Your task to perform on an android device: Open CNN.com Image 0: 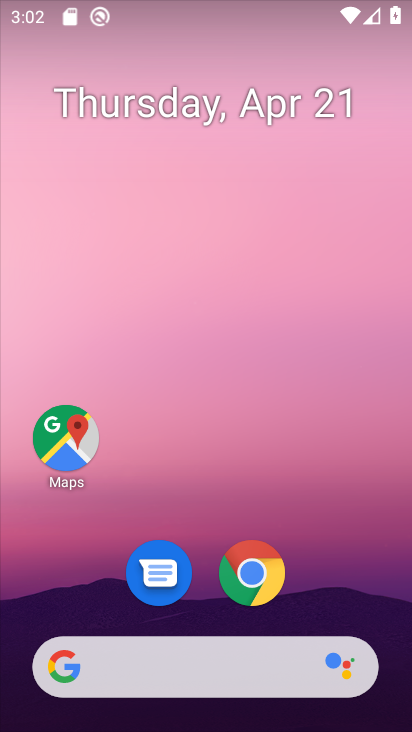
Step 0: click (257, 583)
Your task to perform on an android device: Open CNN.com Image 1: 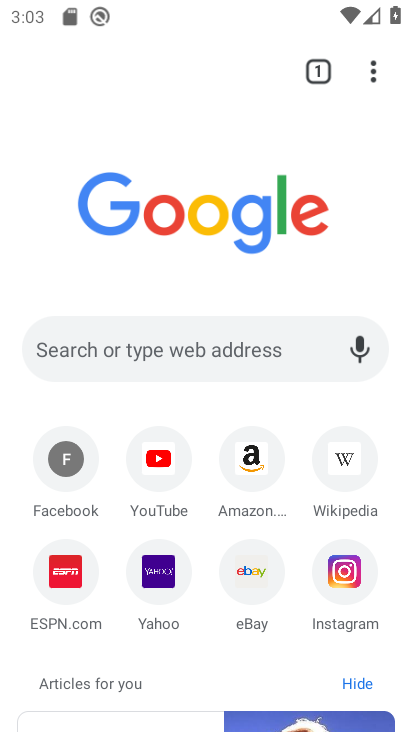
Step 1: click (202, 364)
Your task to perform on an android device: Open CNN.com Image 2: 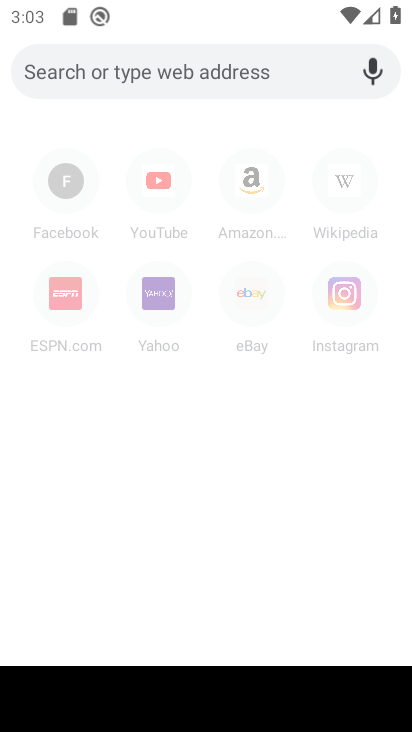
Step 2: type "CNN.com"
Your task to perform on an android device: Open CNN.com Image 3: 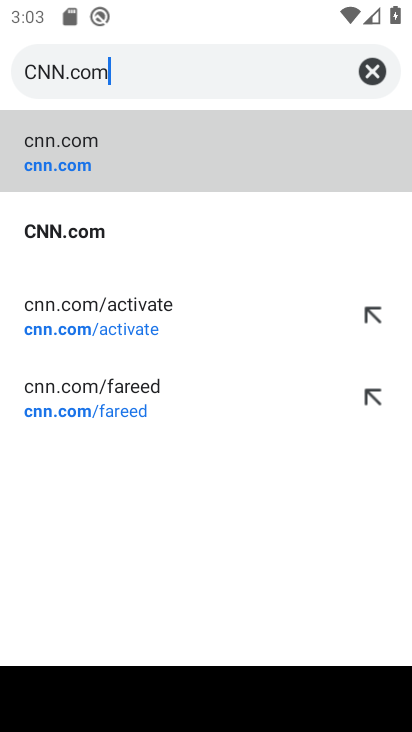
Step 3: click (243, 220)
Your task to perform on an android device: Open CNN.com Image 4: 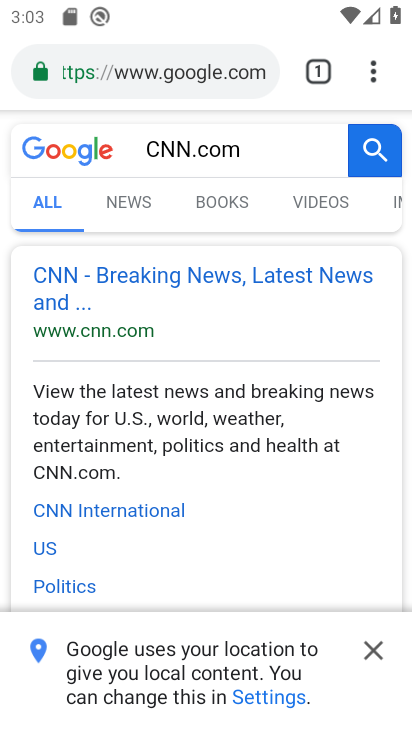
Step 4: click (97, 294)
Your task to perform on an android device: Open CNN.com Image 5: 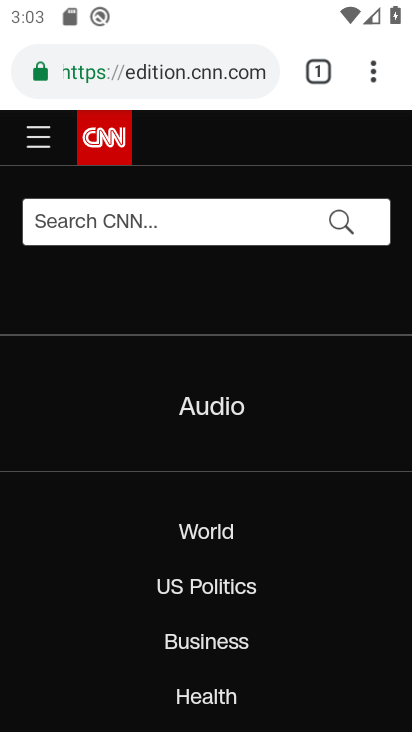
Step 5: task complete